Your task to perform on an android device: Add razer blade to the cart on target.com Image 0: 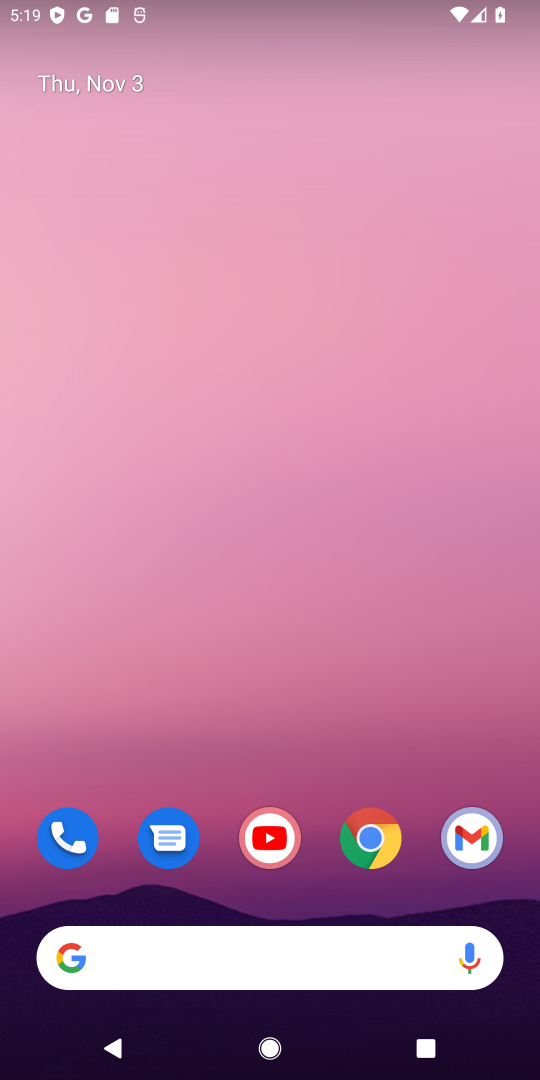
Step 0: click (288, 947)
Your task to perform on an android device: Add razer blade to the cart on target.com Image 1: 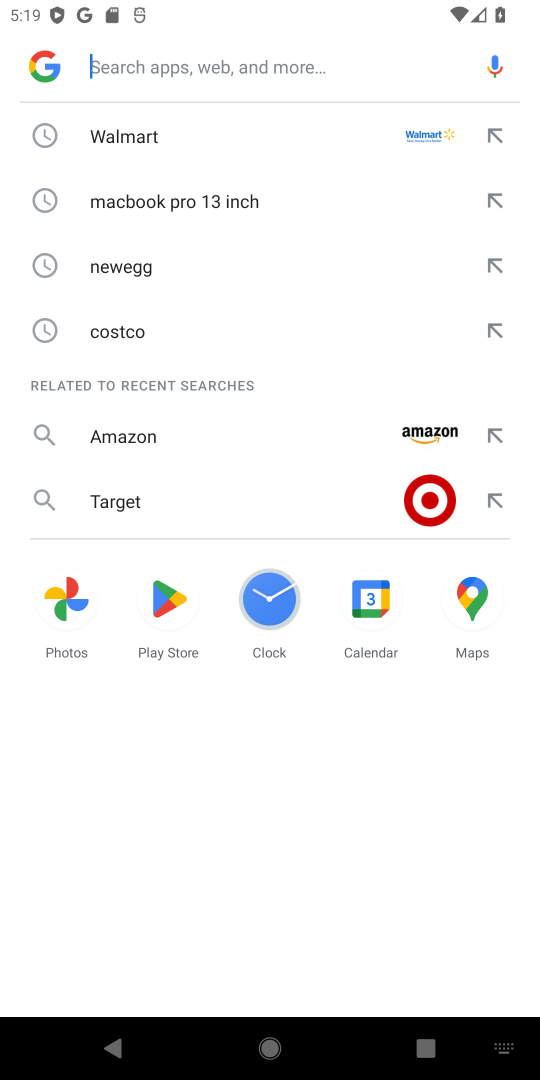
Step 1: click (312, 493)
Your task to perform on an android device: Add razer blade to the cart on target.com Image 2: 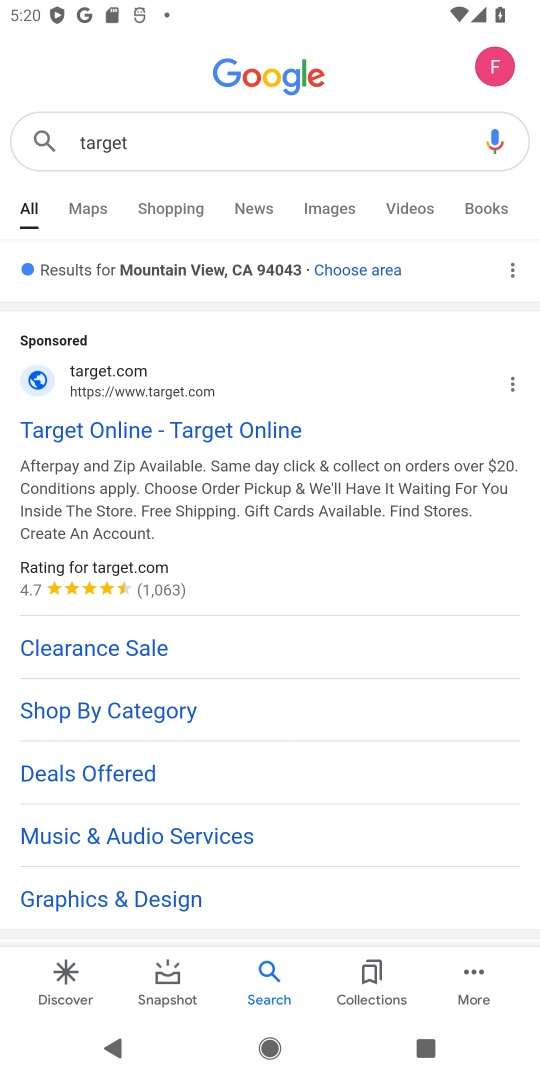
Step 2: click (223, 423)
Your task to perform on an android device: Add razer blade to the cart on target.com Image 3: 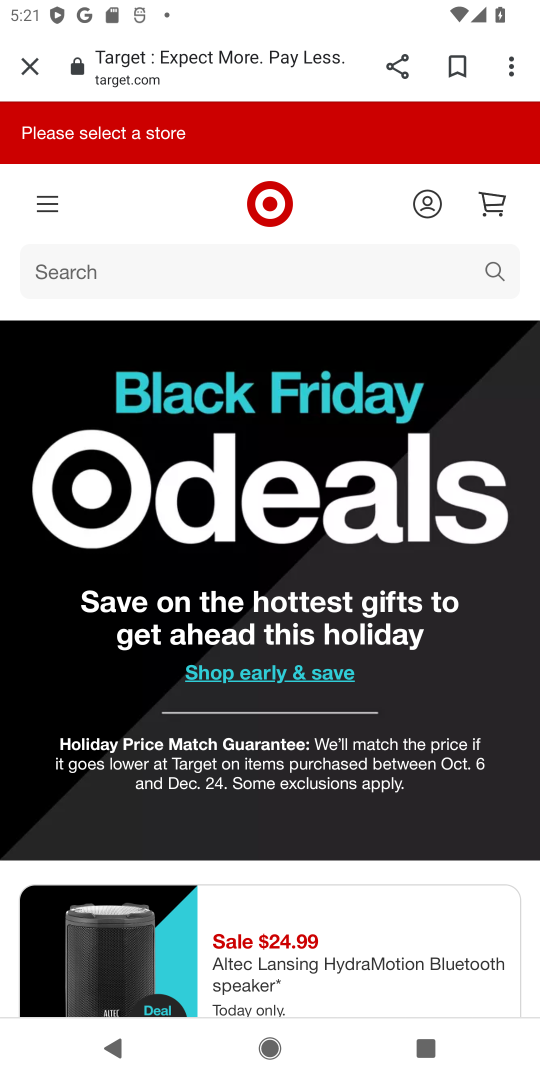
Step 3: click (328, 278)
Your task to perform on an android device: Add razer blade to the cart on target.com Image 4: 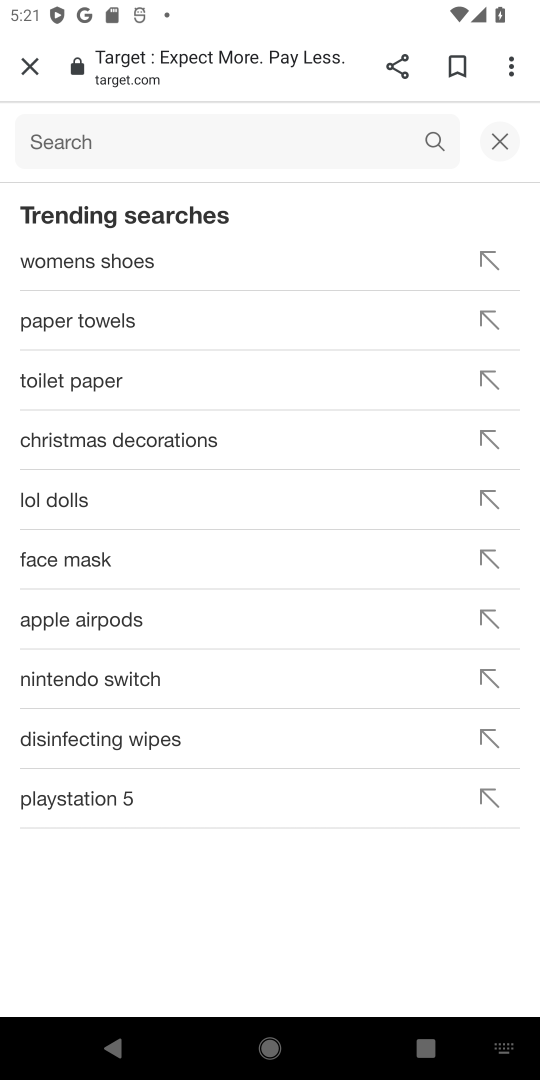
Step 4: type "razer blade "
Your task to perform on an android device: Add razer blade to the cart on target.com Image 5: 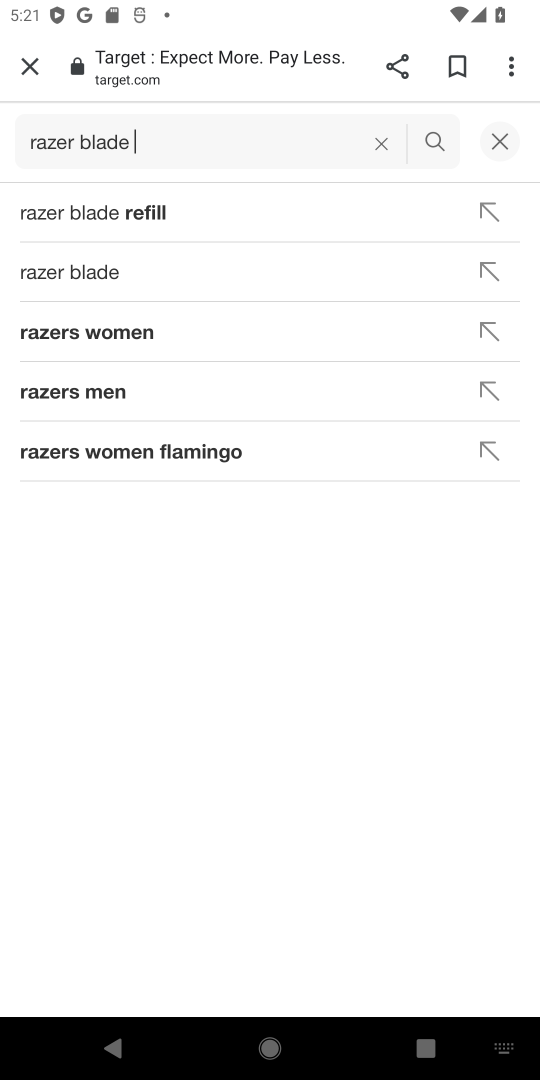
Step 5: click (101, 276)
Your task to perform on an android device: Add razer blade to the cart on target.com Image 6: 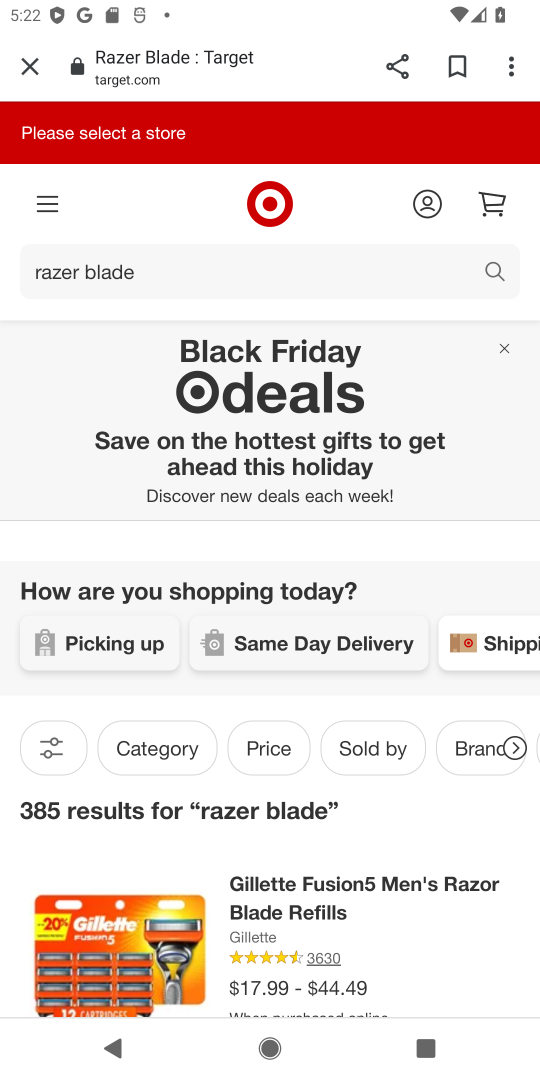
Step 6: drag from (325, 961) to (410, 327)
Your task to perform on an android device: Add razer blade to the cart on target.com Image 7: 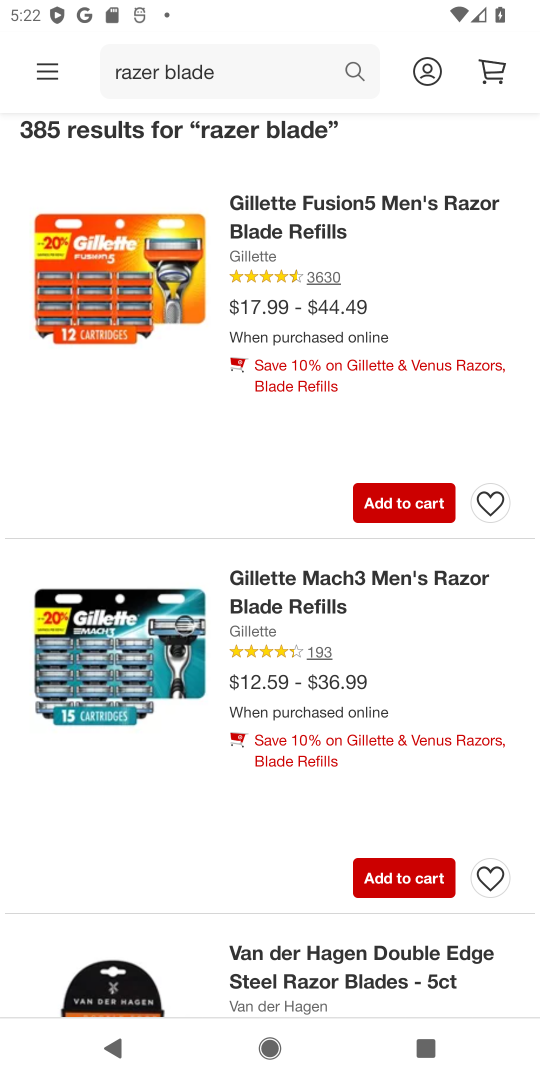
Step 7: click (415, 502)
Your task to perform on an android device: Add razer blade to the cart on target.com Image 8: 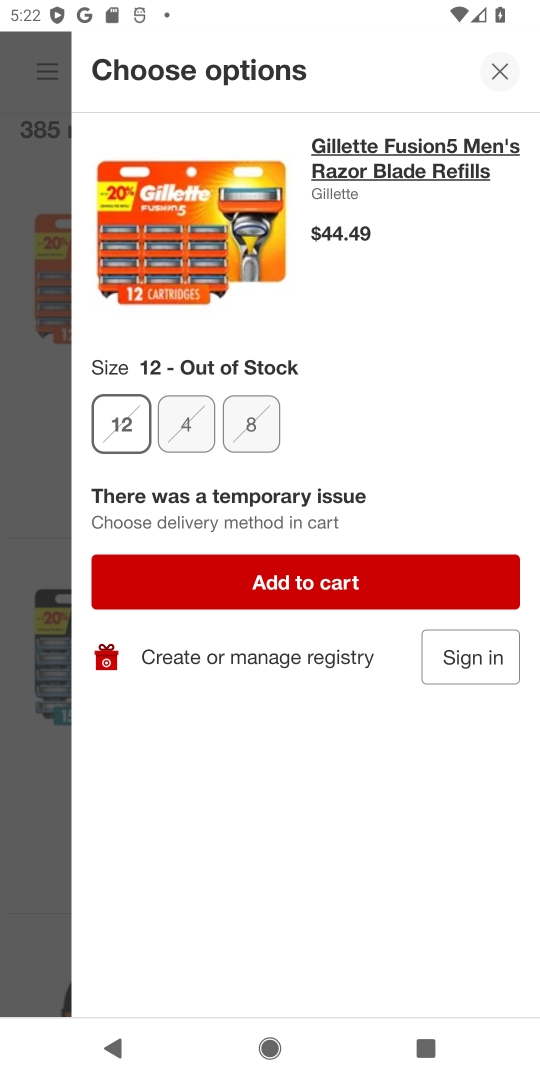
Step 8: click (313, 591)
Your task to perform on an android device: Add razer blade to the cart on target.com Image 9: 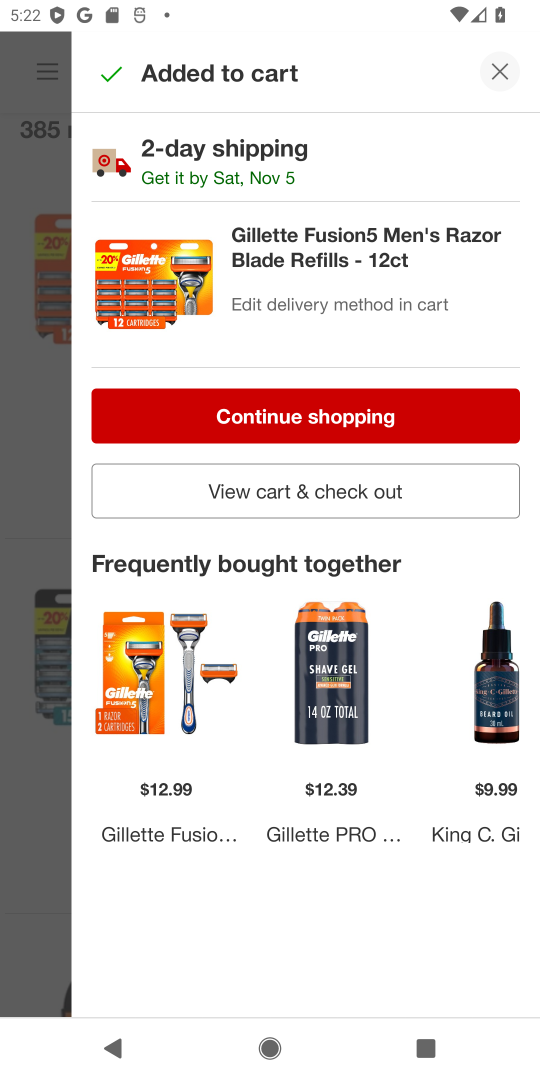
Step 9: task complete